Your task to perform on an android device: show emergency info Image 0: 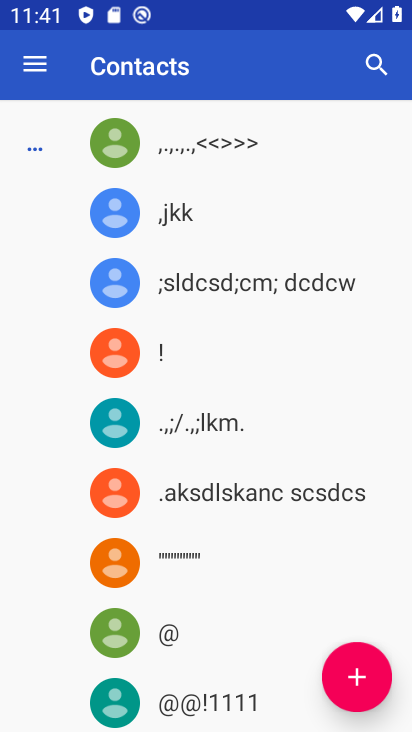
Step 0: press home button
Your task to perform on an android device: show emergency info Image 1: 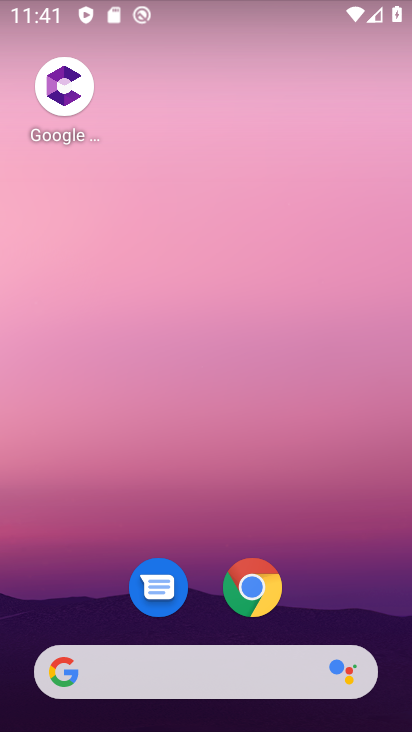
Step 1: drag from (193, 615) to (197, 0)
Your task to perform on an android device: show emergency info Image 2: 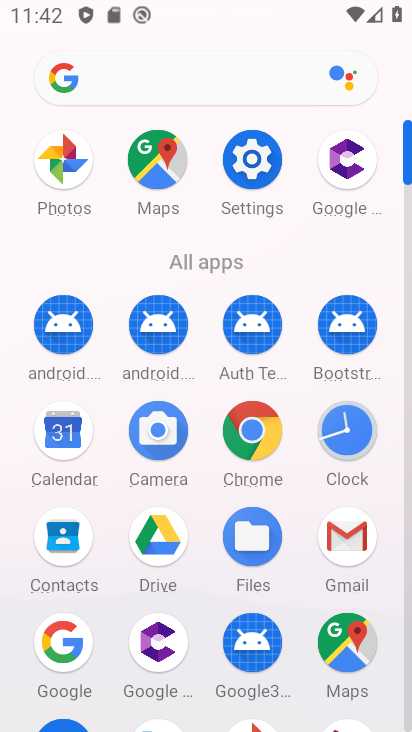
Step 2: click (255, 169)
Your task to perform on an android device: show emergency info Image 3: 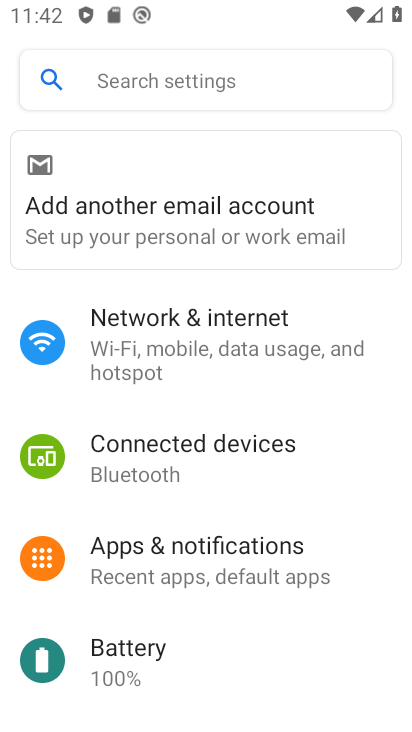
Step 3: drag from (186, 656) to (194, 0)
Your task to perform on an android device: show emergency info Image 4: 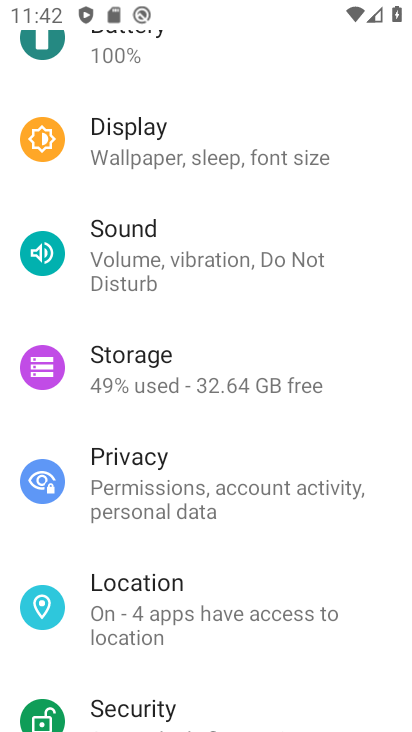
Step 4: drag from (264, 577) to (259, 152)
Your task to perform on an android device: show emergency info Image 5: 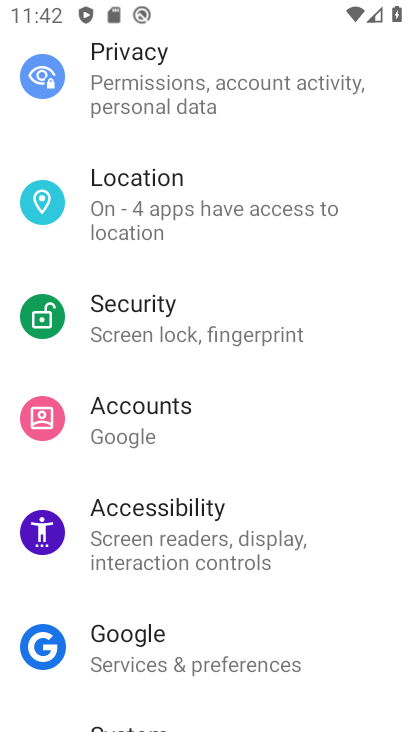
Step 5: drag from (163, 684) to (156, 79)
Your task to perform on an android device: show emergency info Image 6: 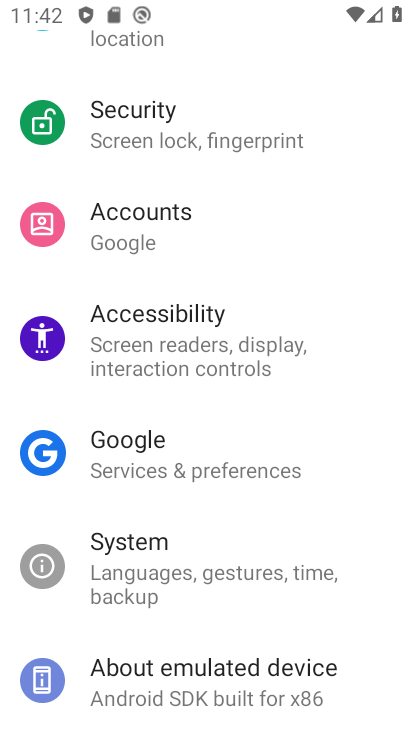
Step 6: click (140, 691)
Your task to perform on an android device: show emergency info Image 7: 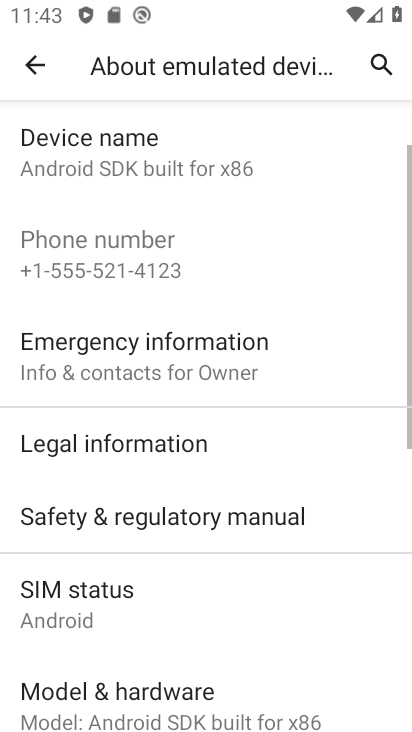
Step 7: click (133, 364)
Your task to perform on an android device: show emergency info Image 8: 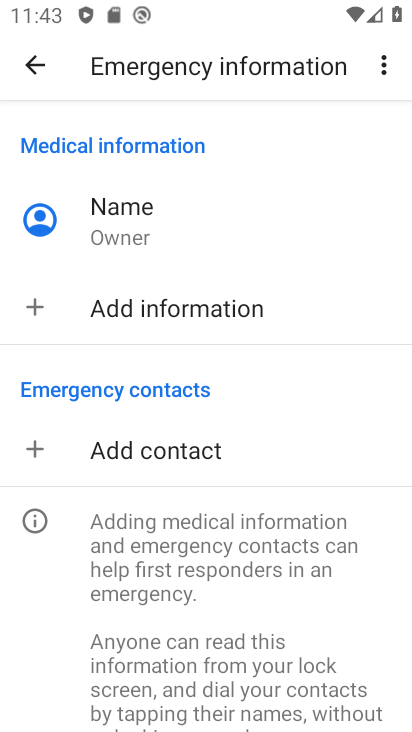
Step 8: task complete